Your task to perform on an android device: turn off picture-in-picture Image 0: 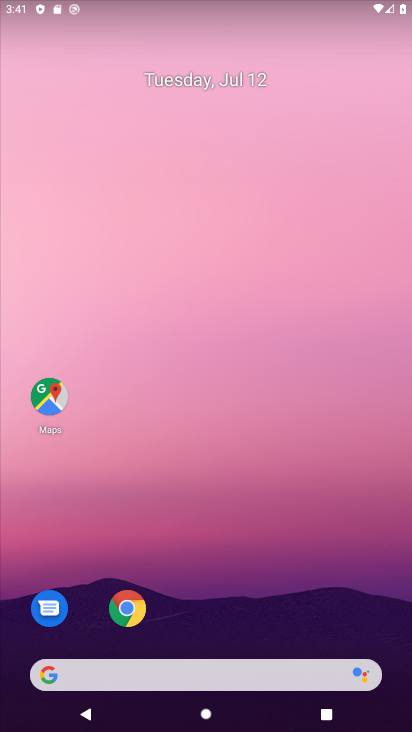
Step 0: drag from (194, 505) to (234, 178)
Your task to perform on an android device: turn off picture-in-picture Image 1: 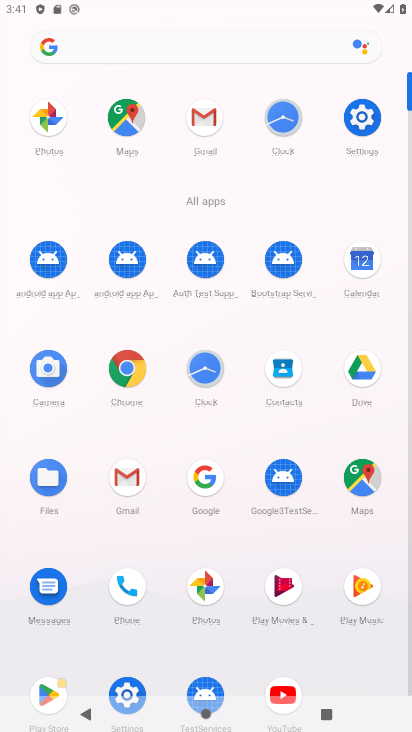
Step 1: click (131, 694)
Your task to perform on an android device: turn off picture-in-picture Image 2: 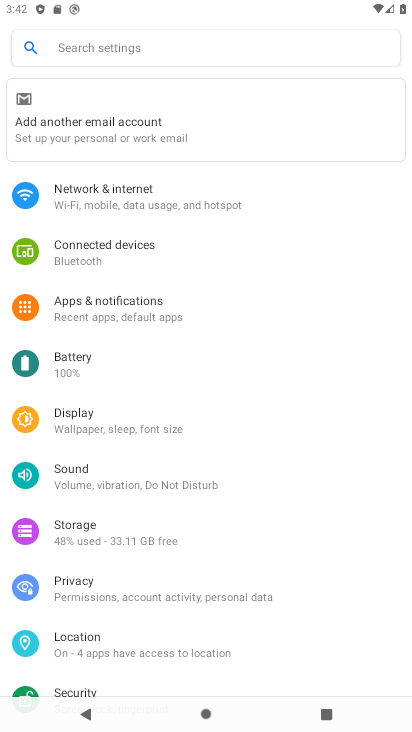
Step 2: click (184, 312)
Your task to perform on an android device: turn off picture-in-picture Image 3: 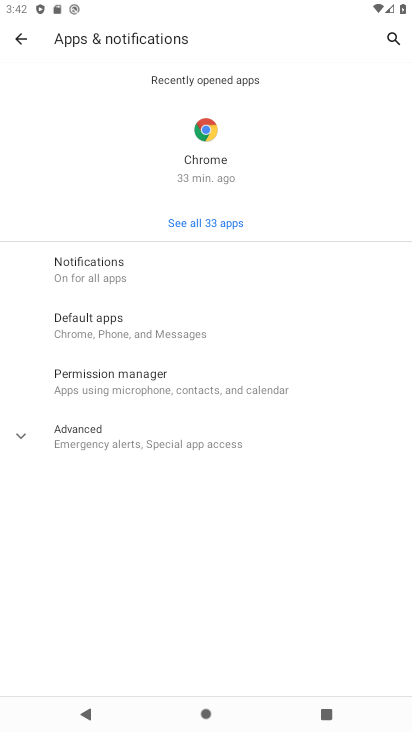
Step 3: click (130, 440)
Your task to perform on an android device: turn off picture-in-picture Image 4: 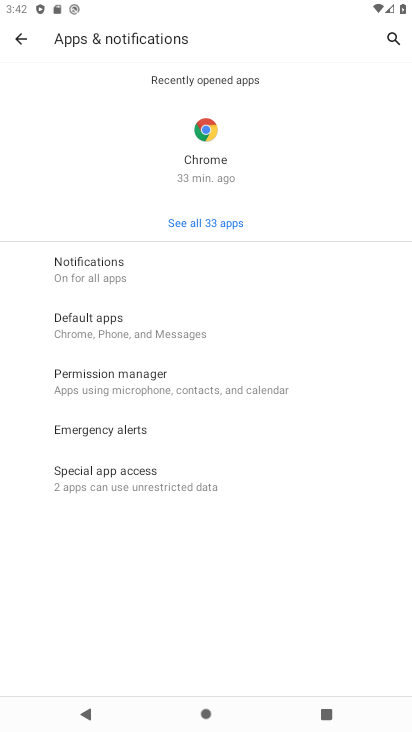
Step 4: click (142, 482)
Your task to perform on an android device: turn off picture-in-picture Image 5: 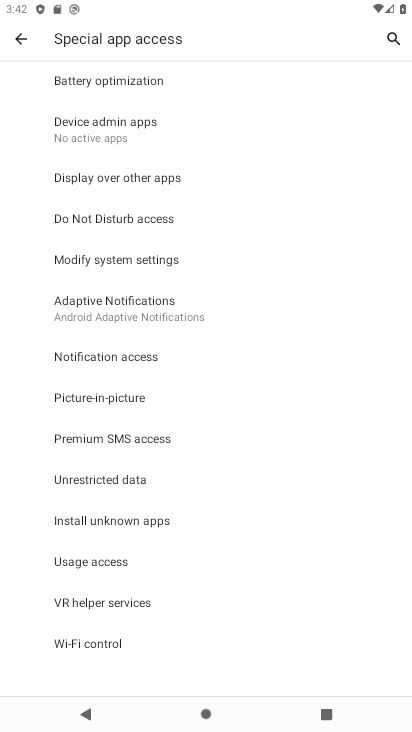
Step 5: click (142, 398)
Your task to perform on an android device: turn off picture-in-picture Image 6: 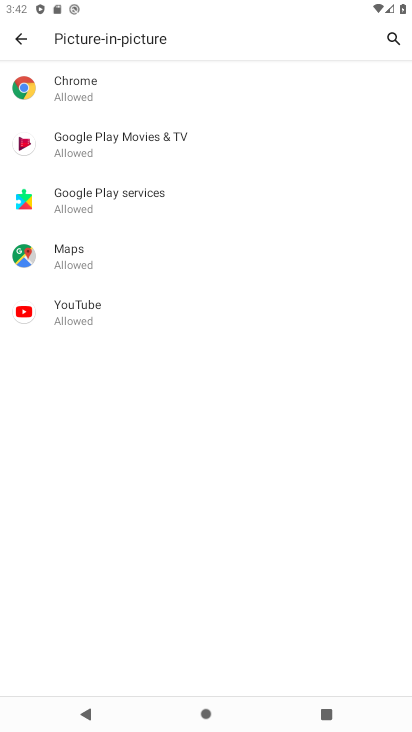
Step 6: click (120, 89)
Your task to perform on an android device: turn off picture-in-picture Image 7: 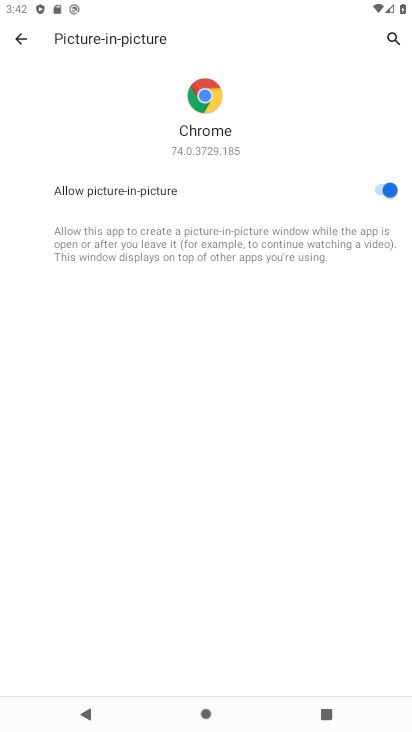
Step 7: click (379, 189)
Your task to perform on an android device: turn off picture-in-picture Image 8: 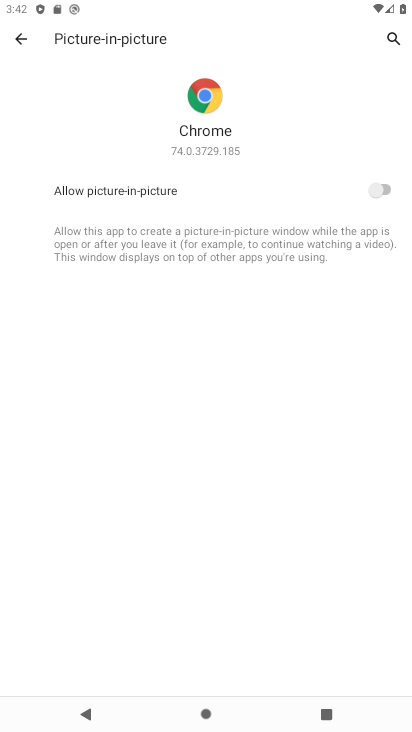
Step 8: press back button
Your task to perform on an android device: turn off picture-in-picture Image 9: 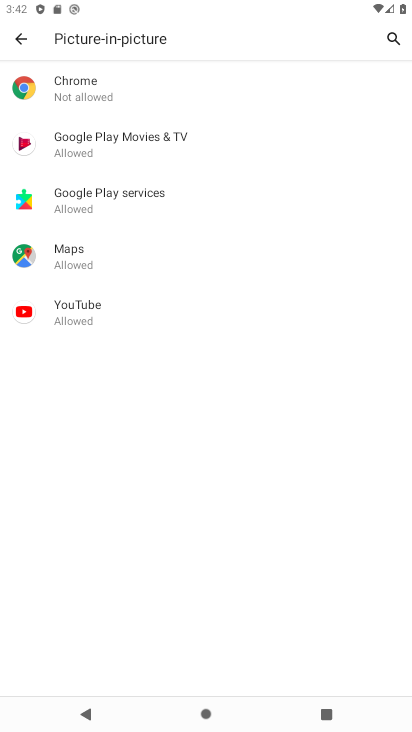
Step 9: click (79, 162)
Your task to perform on an android device: turn off picture-in-picture Image 10: 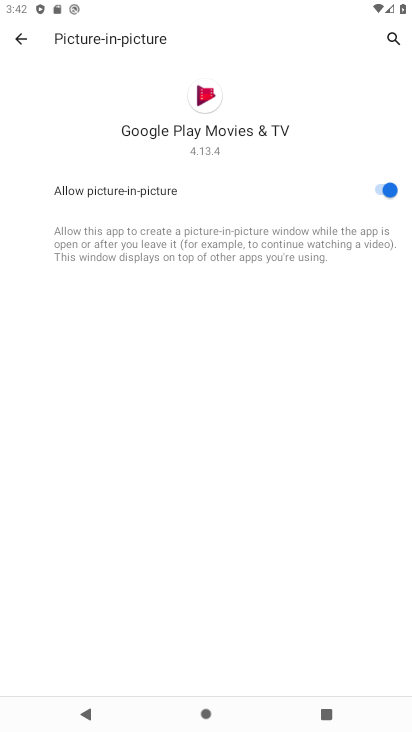
Step 10: click (374, 190)
Your task to perform on an android device: turn off picture-in-picture Image 11: 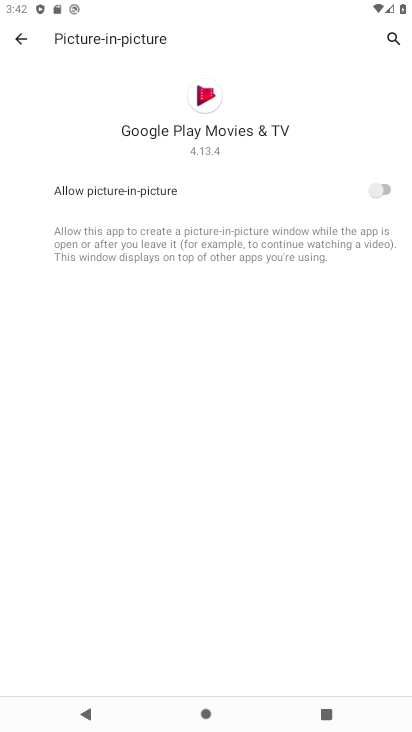
Step 11: press back button
Your task to perform on an android device: turn off picture-in-picture Image 12: 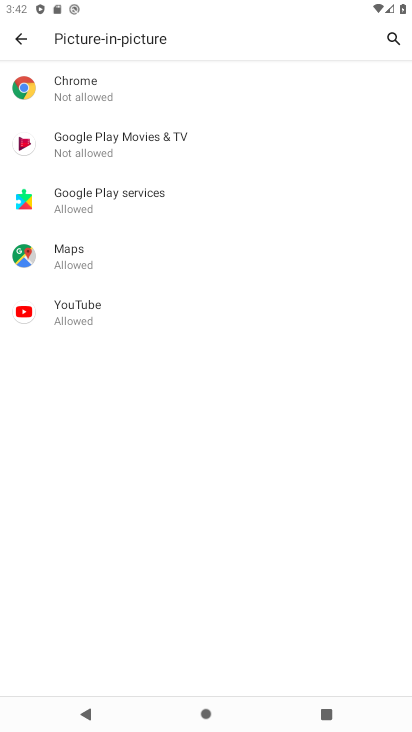
Step 12: click (172, 194)
Your task to perform on an android device: turn off picture-in-picture Image 13: 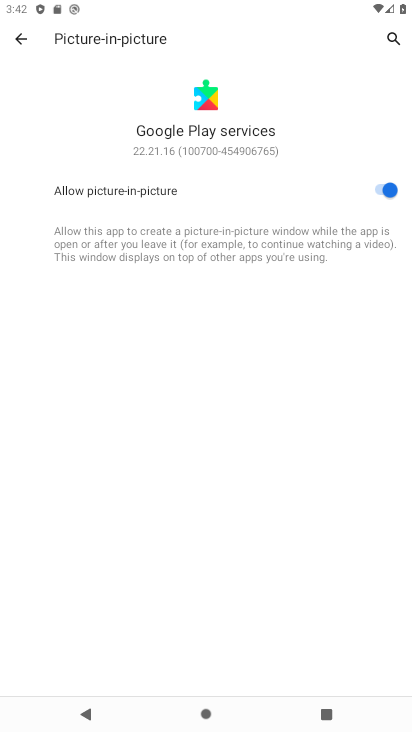
Step 13: click (381, 186)
Your task to perform on an android device: turn off picture-in-picture Image 14: 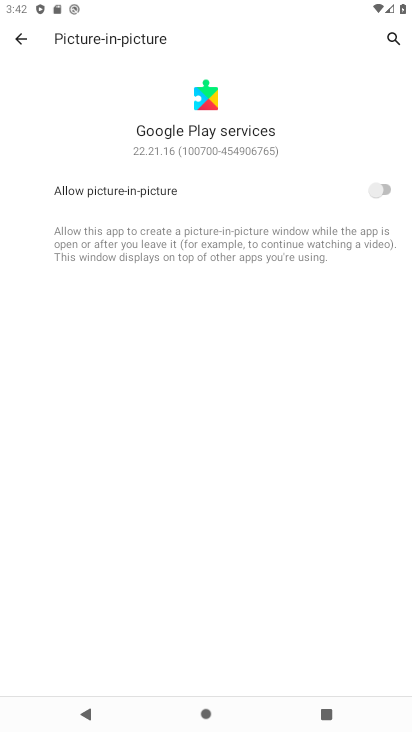
Step 14: press back button
Your task to perform on an android device: turn off picture-in-picture Image 15: 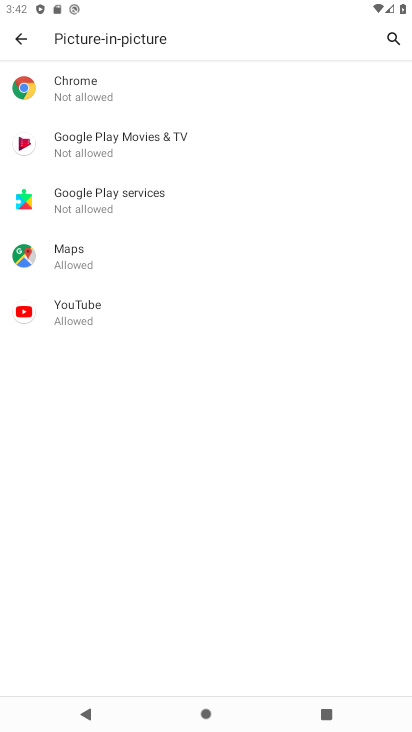
Step 15: click (136, 253)
Your task to perform on an android device: turn off picture-in-picture Image 16: 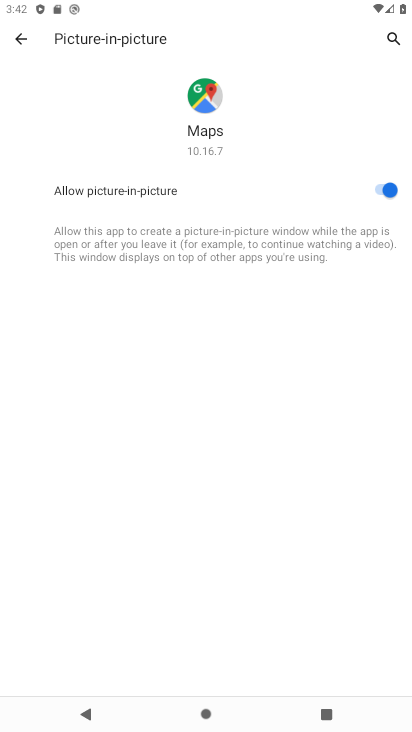
Step 16: click (361, 178)
Your task to perform on an android device: turn off picture-in-picture Image 17: 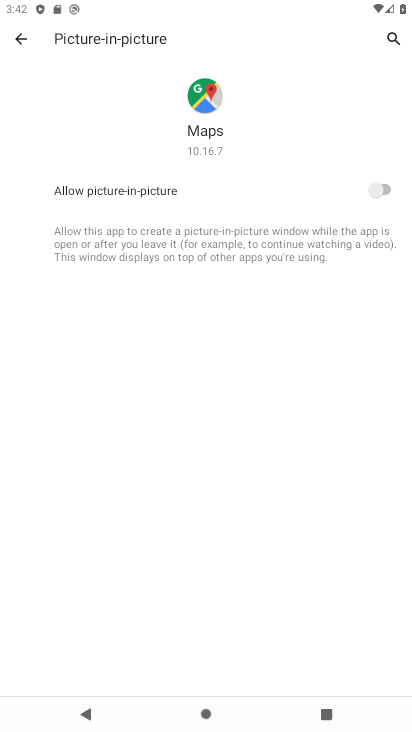
Step 17: press back button
Your task to perform on an android device: turn off picture-in-picture Image 18: 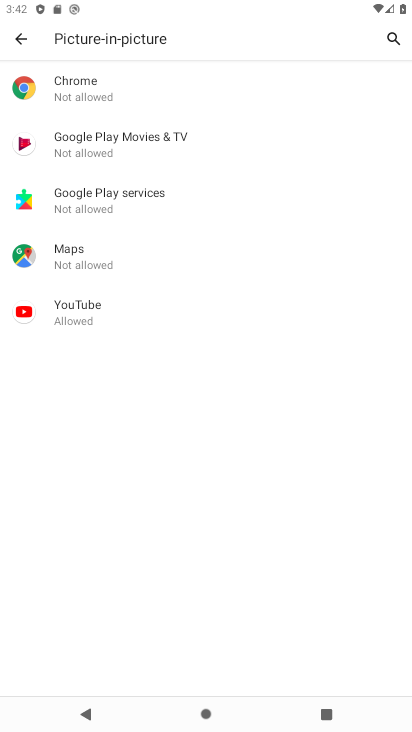
Step 18: click (141, 313)
Your task to perform on an android device: turn off picture-in-picture Image 19: 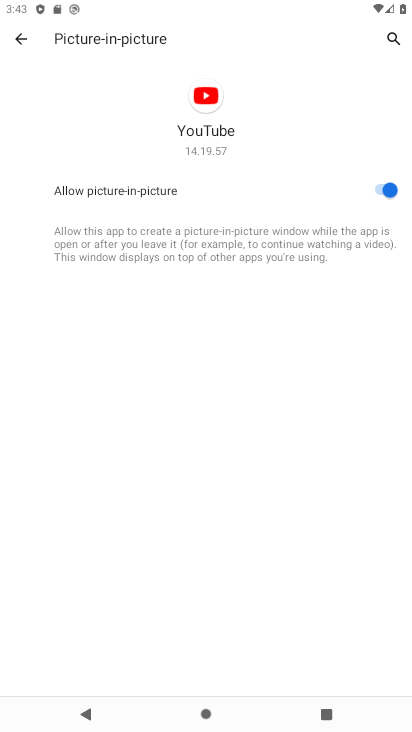
Step 19: click (366, 188)
Your task to perform on an android device: turn off picture-in-picture Image 20: 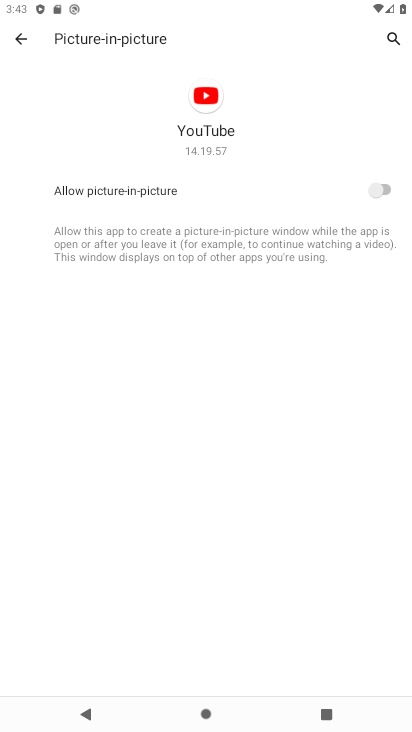
Step 20: task complete